Your task to perform on an android device: turn off sleep mode Image 0: 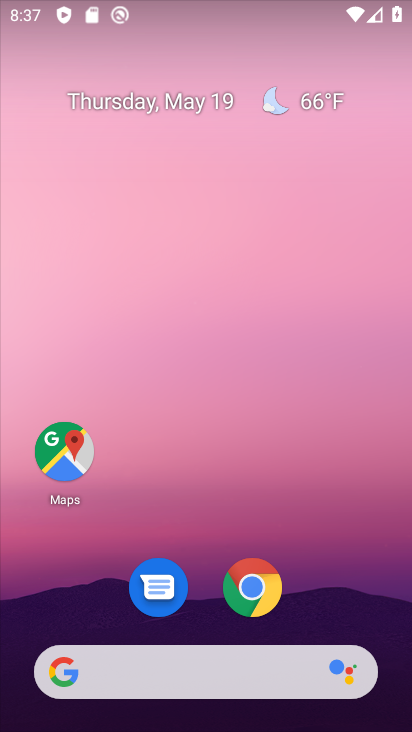
Step 0: drag from (316, 701) to (320, 202)
Your task to perform on an android device: turn off sleep mode Image 1: 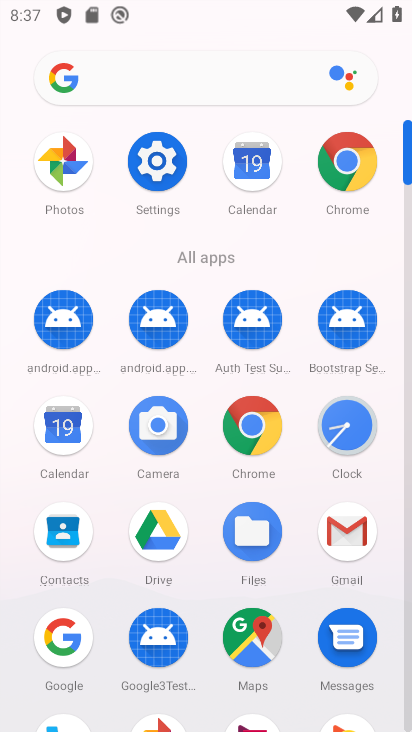
Step 1: click (146, 167)
Your task to perform on an android device: turn off sleep mode Image 2: 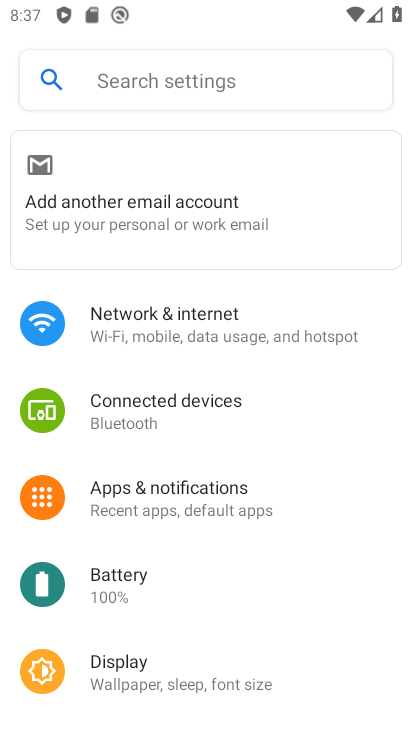
Step 2: click (171, 72)
Your task to perform on an android device: turn off sleep mode Image 3: 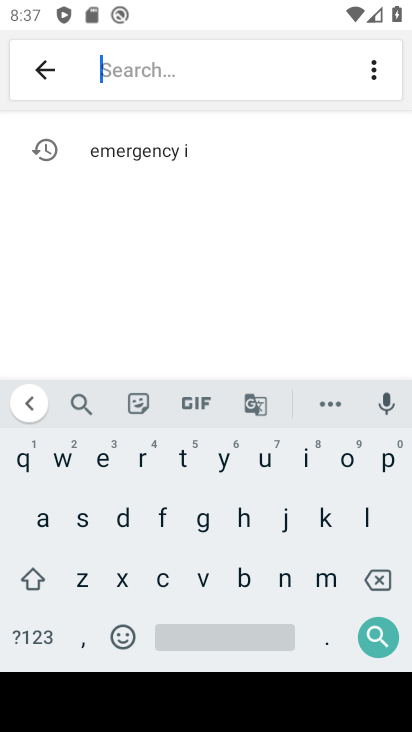
Step 3: click (79, 517)
Your task to perform on an android device: turn off sleep mode Image 4: 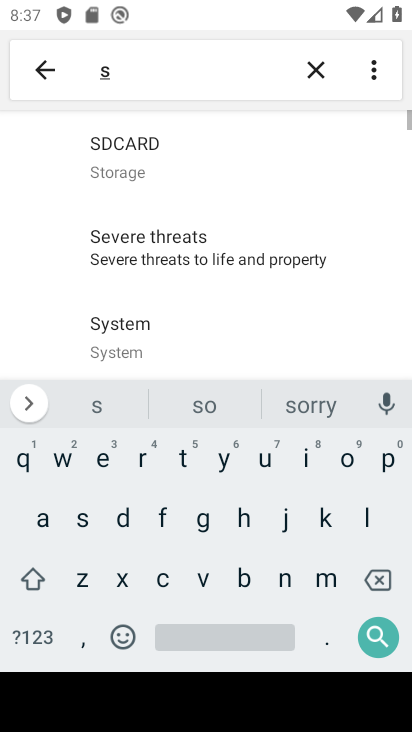
Step 4: click (361, 517)
Your task to perform on an android device: turn off sleep mode Image 5: 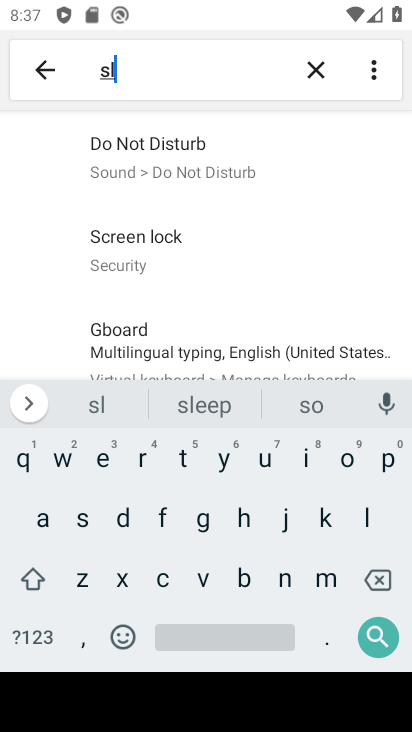
Step 5: click (152, 160)
Your task to perform on an android device: turn off sleep mode Image 6: 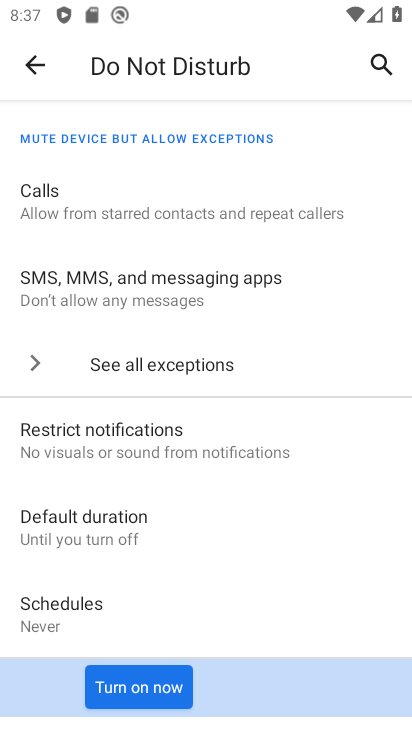
Step 6: click (168, 682)
Your task to perform on an android device: turn off sleep mode Image 7: 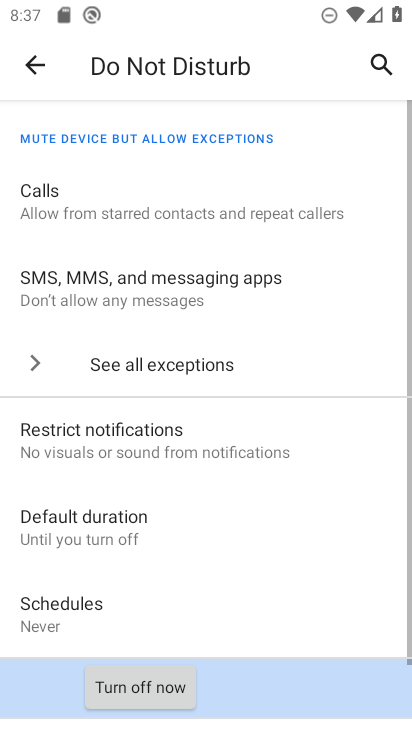
Step 7: click (139, 691)
Your task to perform on an android device: turn off sleep mode Image 8: 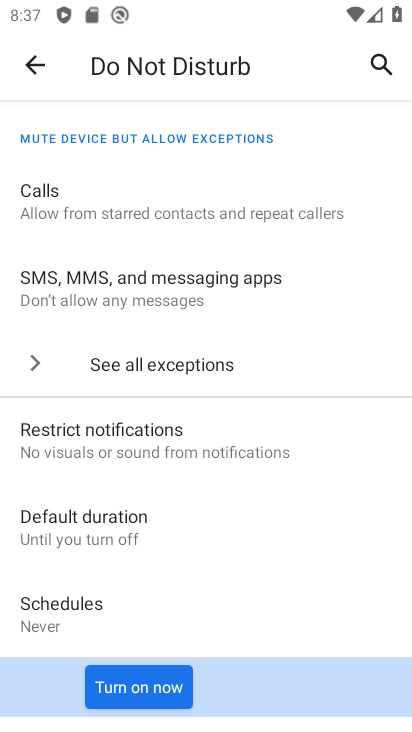
Step 8: task complete